Your task to perform on an android device: Play the last video I watched on Youtube Image 0: 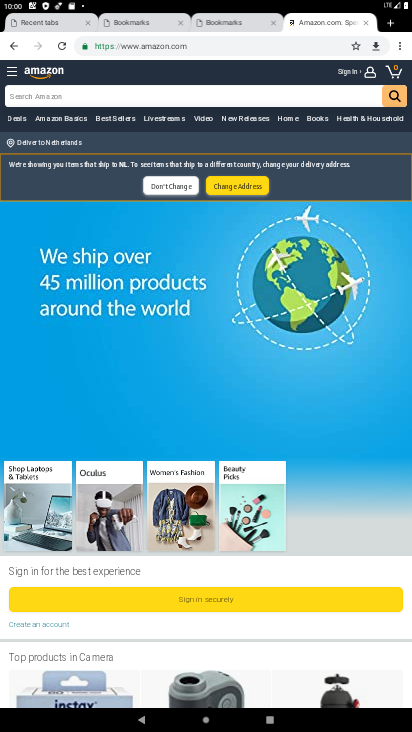
Step 0: press home button
Your task to perform on an android device: Play the last video I watched on Youtube Image 1: 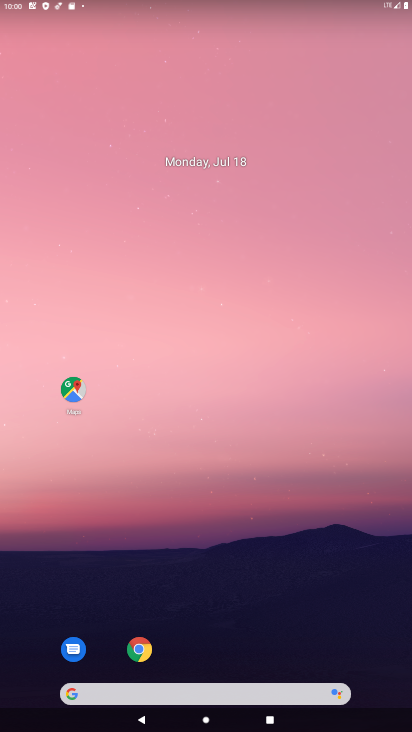
Step 1: drag from (225, 723) to (295, 204)
Your task to perform on an android device: Play the last video I watched on Youtube Image 2: 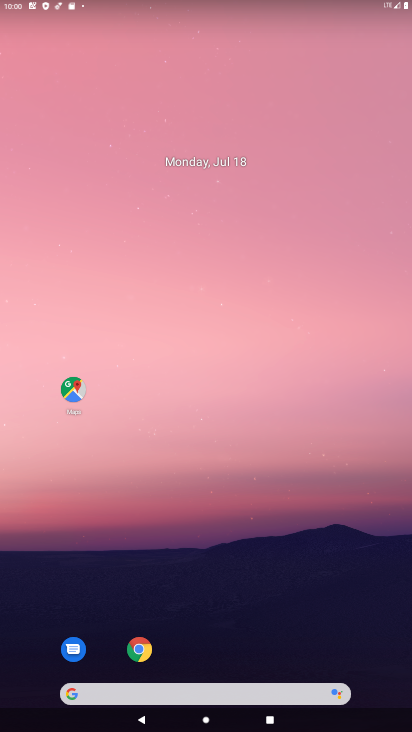
Step 2: drag from (237, 714) to (262, 156)
Your task to perform on an android device: Play the last video I watched on Youtube Image 3: 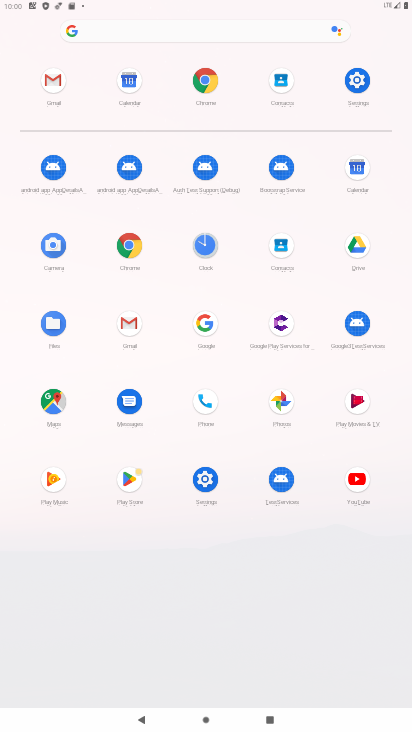
Step 3: click (359, 474)
Your task to perform on an android device: Play the last video I watched on Youtube Image 4: 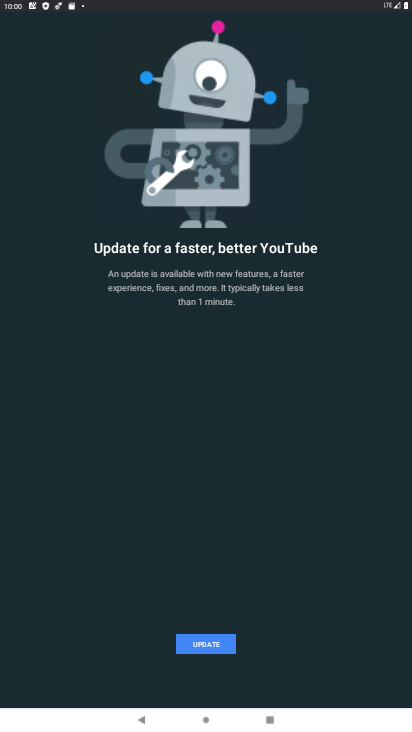
Step 4: click (218, 645)
Your task to perform on an android device: Play the last video I watched on Youtube Image 5: 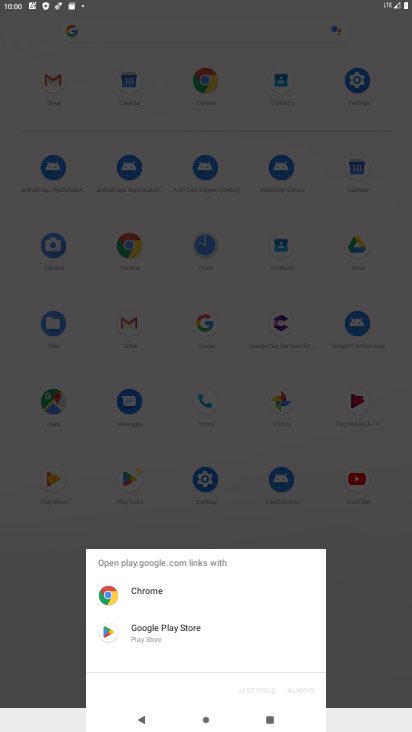
Step 5: click (151, 628)
Your task to perform on an android device: Play the last video I watched on Youtube Image 6: 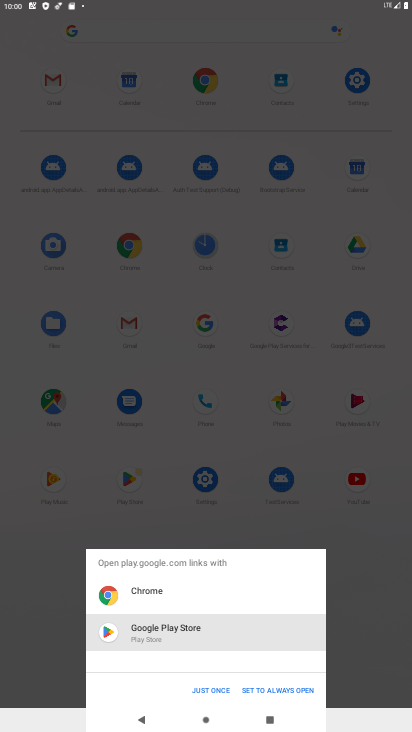
Step 6: click (214, 691)
Your task to perform on an android device: Play the last video I watched on Youtube Image 7: 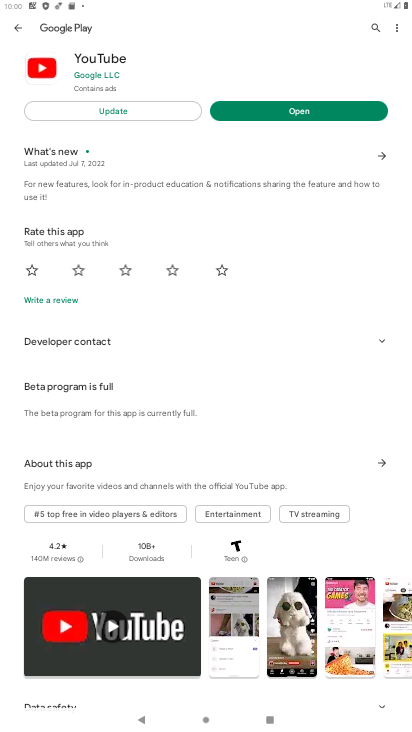
Step 7: click (135, 110)
Your task to perform on an android device: Play the last video I watched on Youtube Image 8: 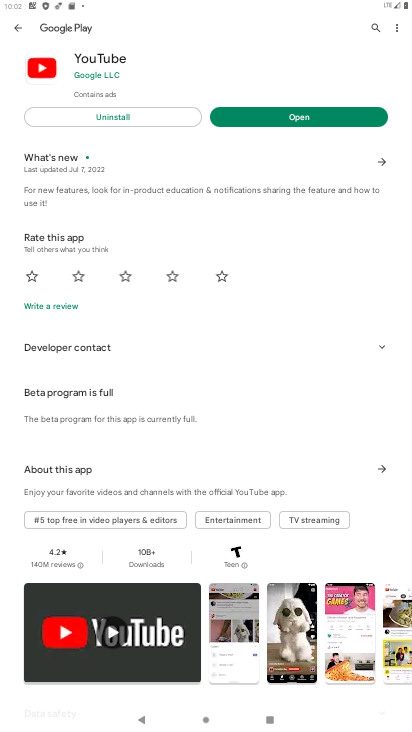
Step 8: click (271, 113)
Your task to perform on an android device: Play the last video I watched on Youtube Image 9: 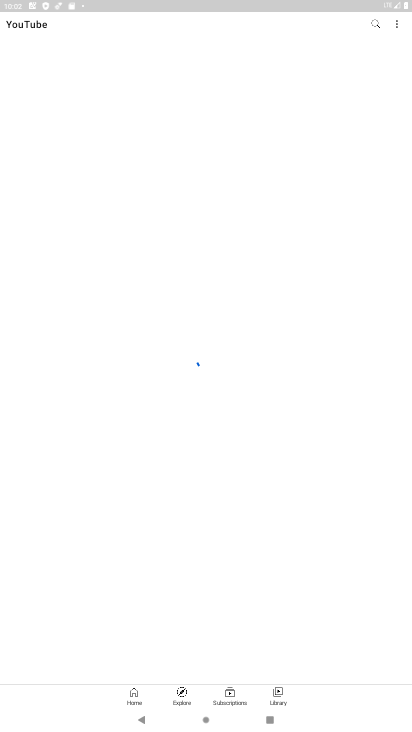
Step 9: click (273, 687)
Your task to perform on an android device: Play the last video I watched on Youtube Image 10: 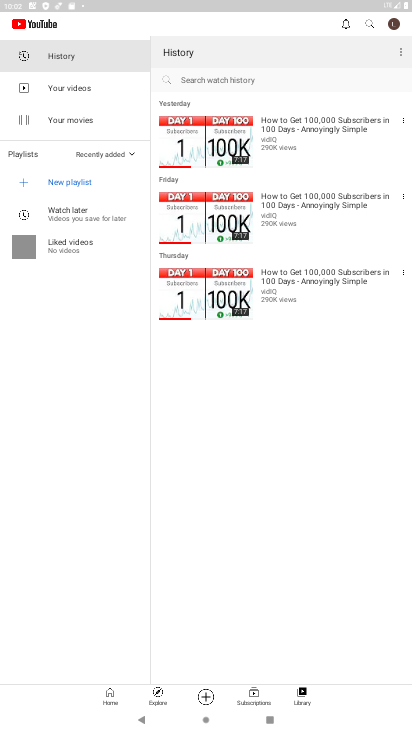
Step 10: click (279, 140)
Your task to perform on an android device: Play the last video I watched on Youtube Image 11: 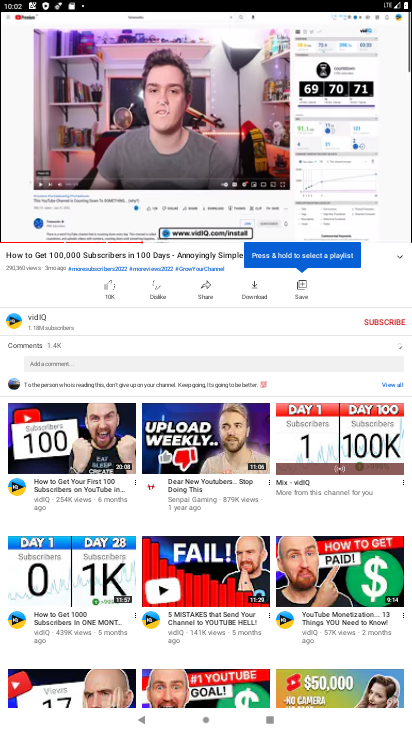
Step 11: click (189, 132)
Your task to perform on an android device: Play the last video I watched on Youtube Image 12: 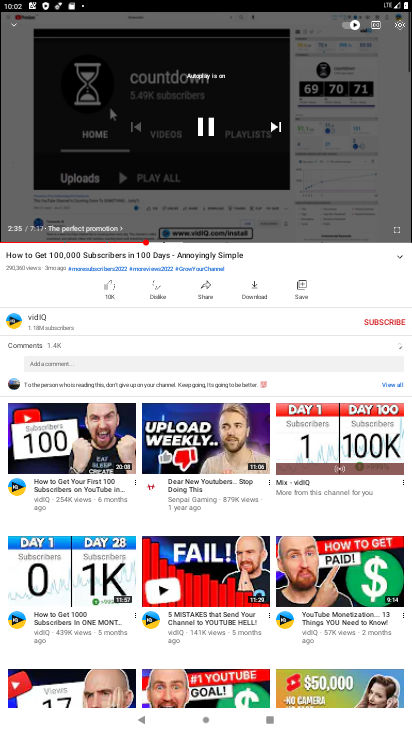
Step 12: task complete